Your task to perform on an android device: uninstall "Lyft - Rideshare, Bikes, Scooters & Transit" Image 0: 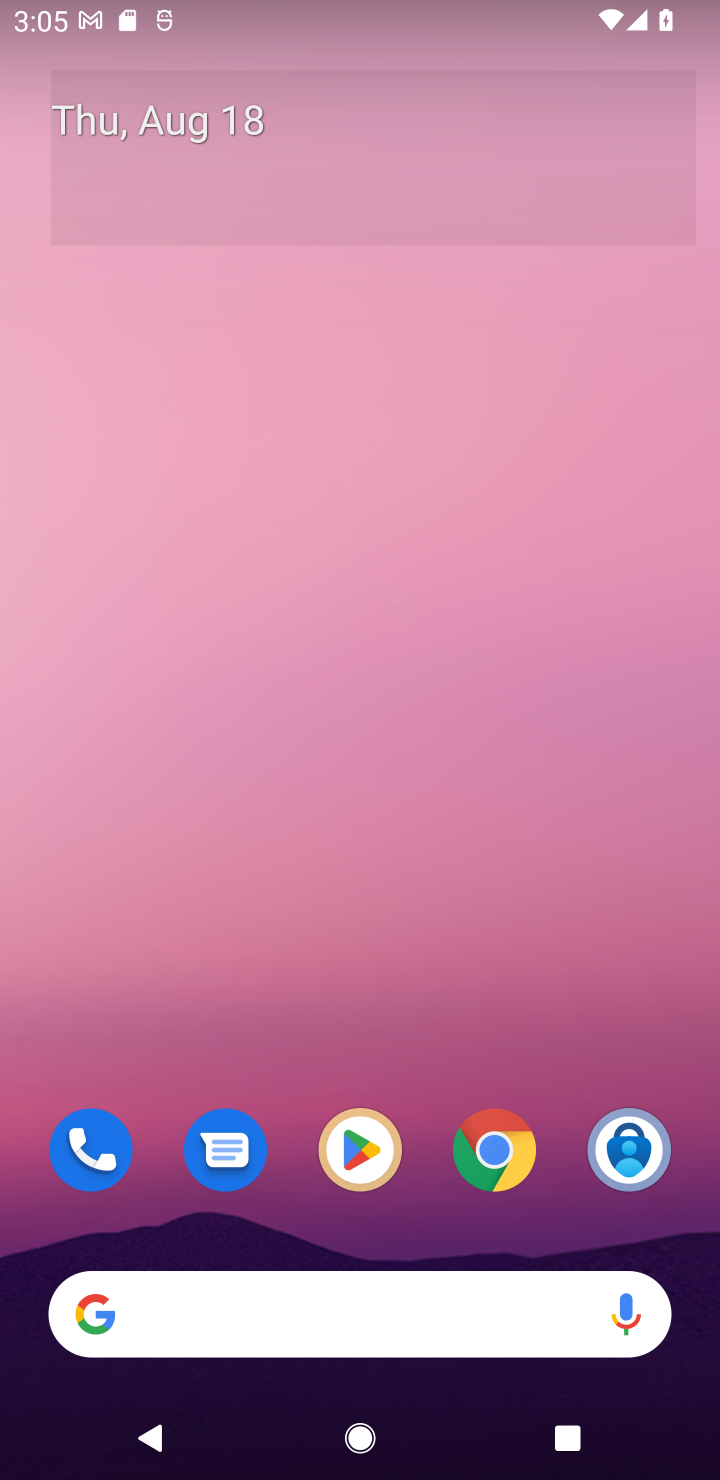
Step 0: click (365, 1146)
Your task to perform on an android device: uninstall "Lyft - Rideshare, Bikes, Scooters & Transit" Image 1: 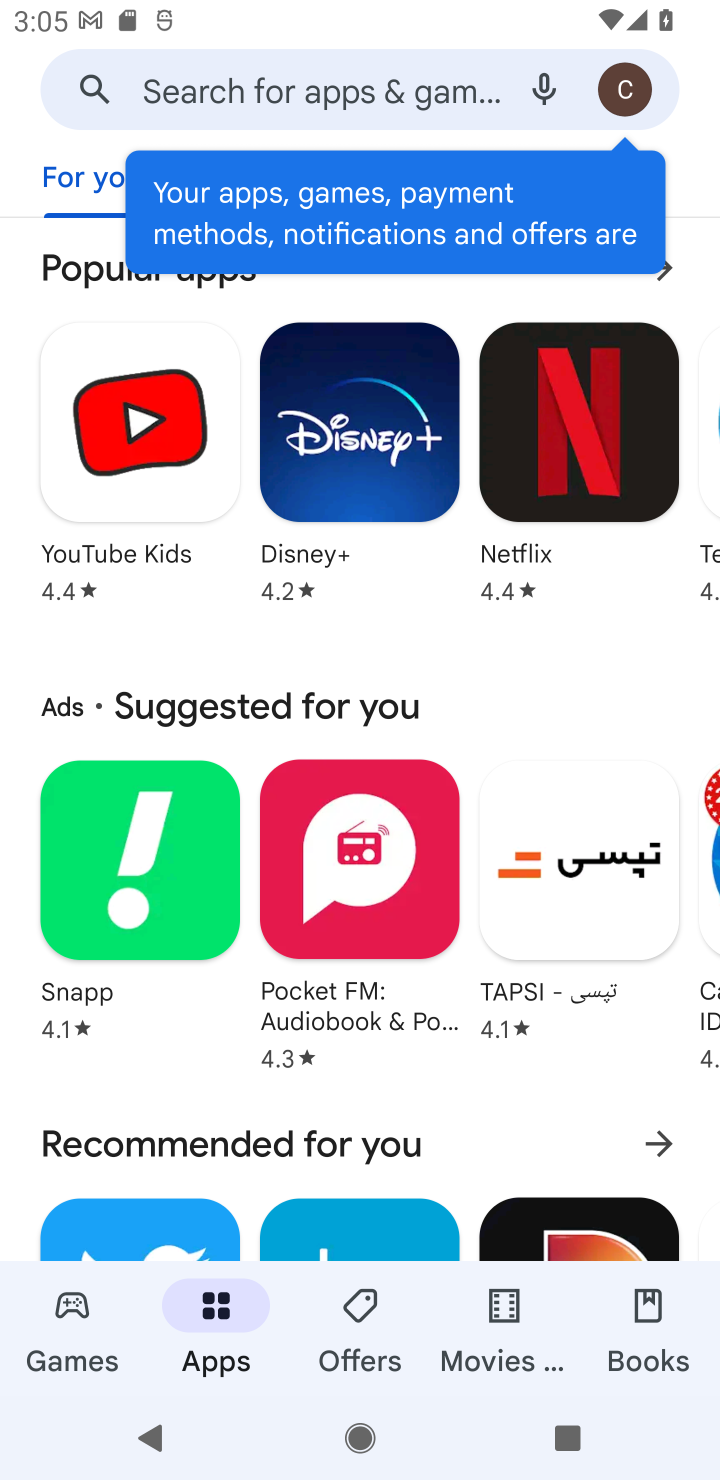
Step 1: click (361, 84)
Your task to perform on an android device: uninstall "Lyft - Rideshare, Bikes, Scooters & Transit" Image 2: 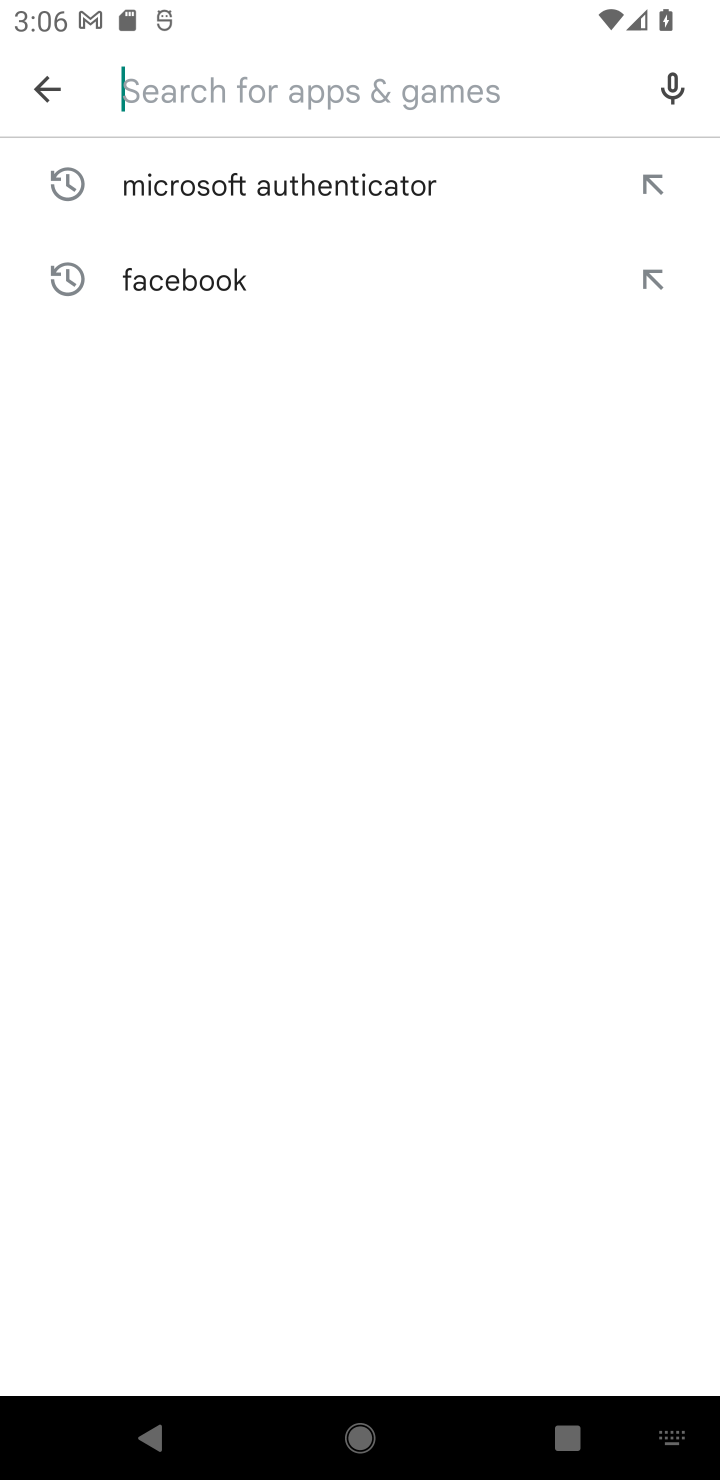
Step 2: type "Lyft - Rideshare, Bikes, Scooters & Transit"
Your task to perform on an android device: uninstall "Lyft - Rideshare, Bikes, Scooters & Transit" Image 3: 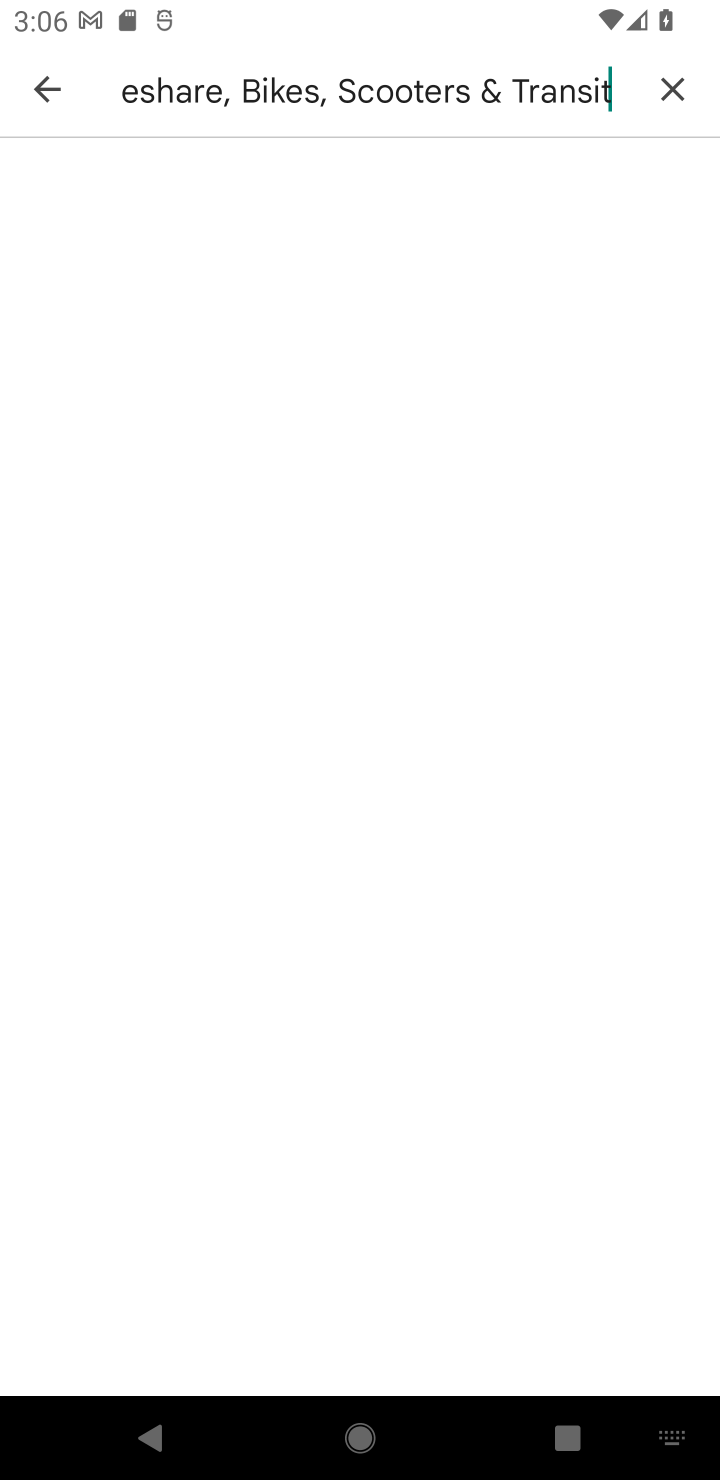
Step 3: task complete